Your task to perform on an android device: Go to Wikipedia Image 0: 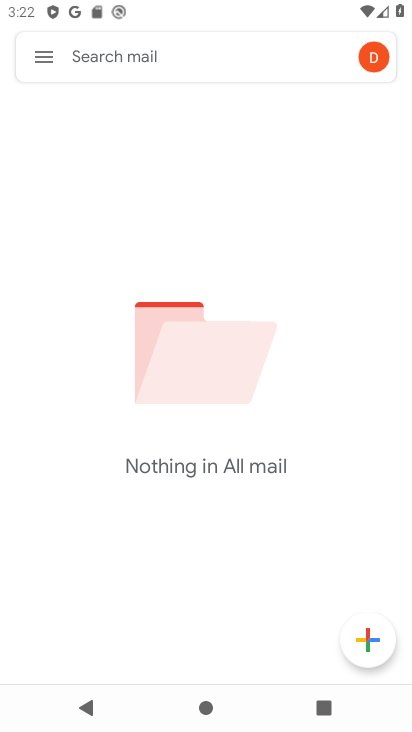
Step 0: press home button
Your task to perform on an android device: Go to Wikipedia Image 1: 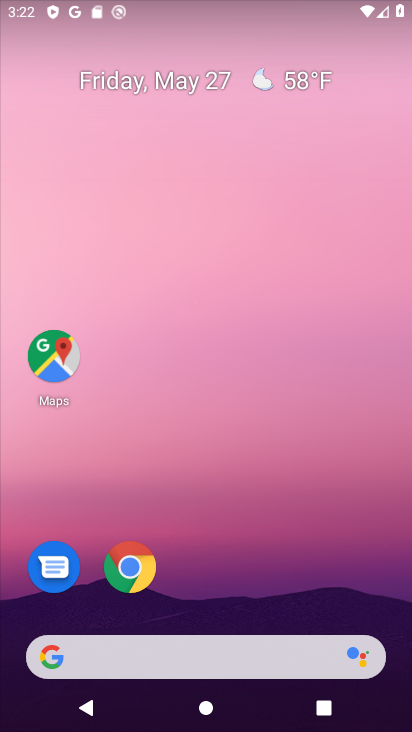
Step 1: click (128, 558)
Your task to perform on an android device: Go to Wikipedia Image 2: 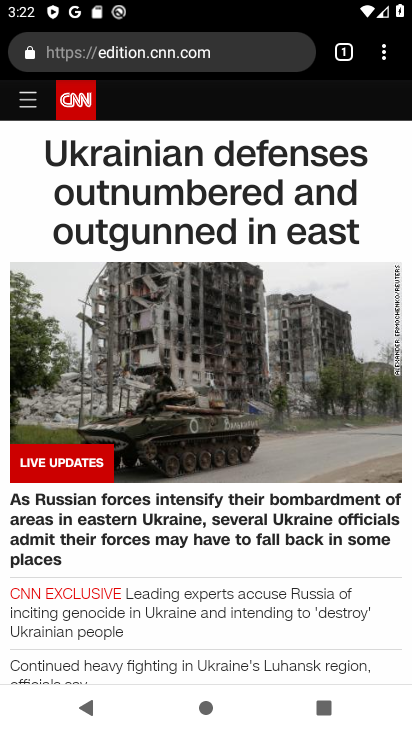
Step 2: click (340, 48)
Your task to perform on an android device: Go to Wikipedia Image 3: 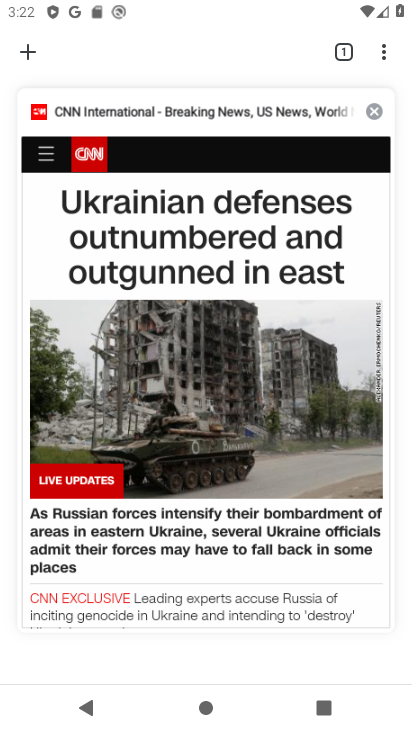
Step 3: click (370, 107)
Your task to perform on an android device: Go to Wikipedia Image 4: 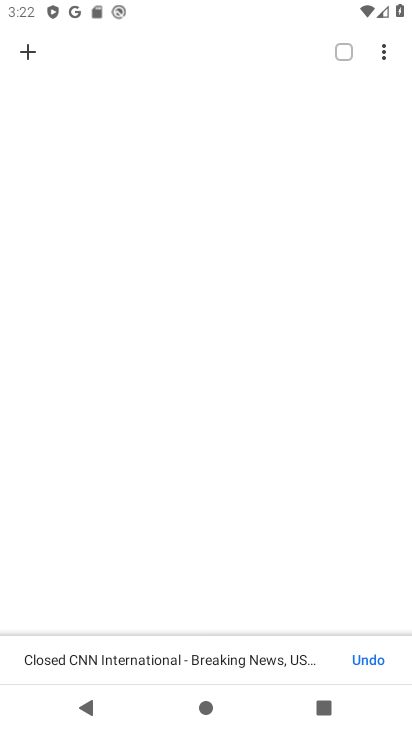
Step 4: click (29, 52)
Your task to perform on an android device: Go to Wikipedia Image 5: 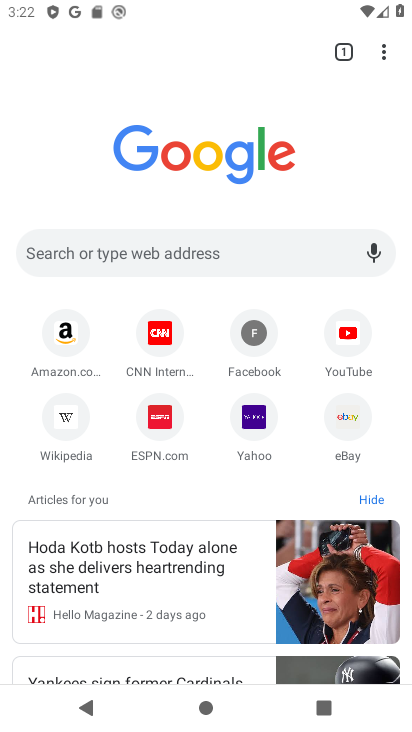
Step 5: click (63, 417)
Your task to perform on an android device: Go to Wikipedia Image 6: 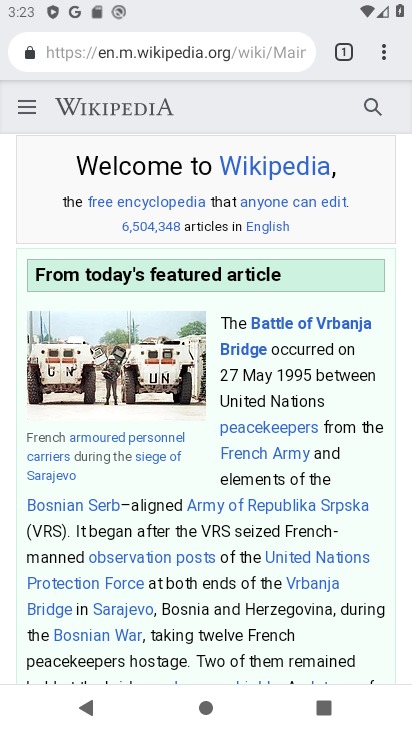
Step 6: task complete